Your task to perform on an android device: Go to Android settings Image 0: 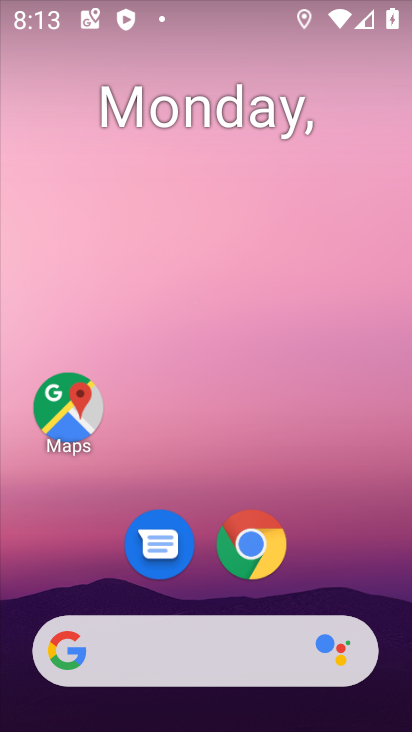
Step 0: drag from (198, 586) to (118, 3)
Your task to perform on an android device: Go to Android settings Image 1: 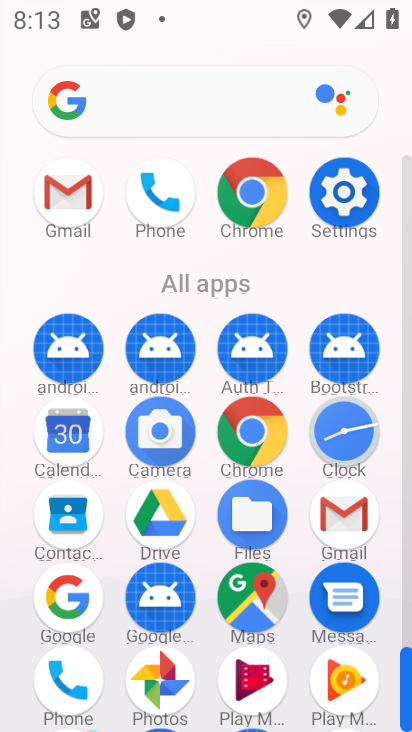
Step 1: click (357, 220)
Your task to perform on an android device: Go to Android settings Image 2: 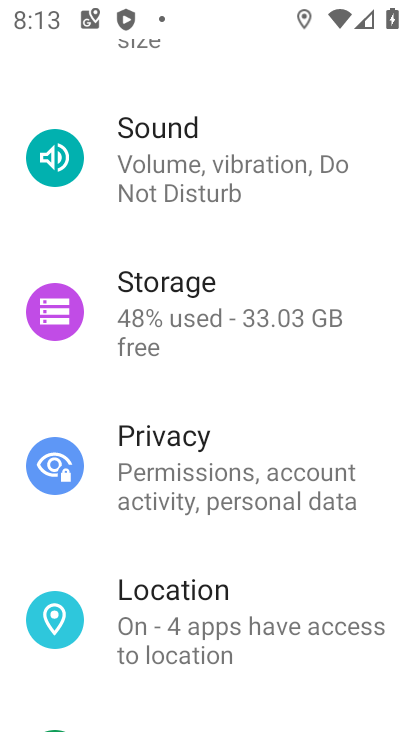
Step 2: task complete